Your task to perform on an android device: open app "LiveIn - Share Your Moment" Image 0: 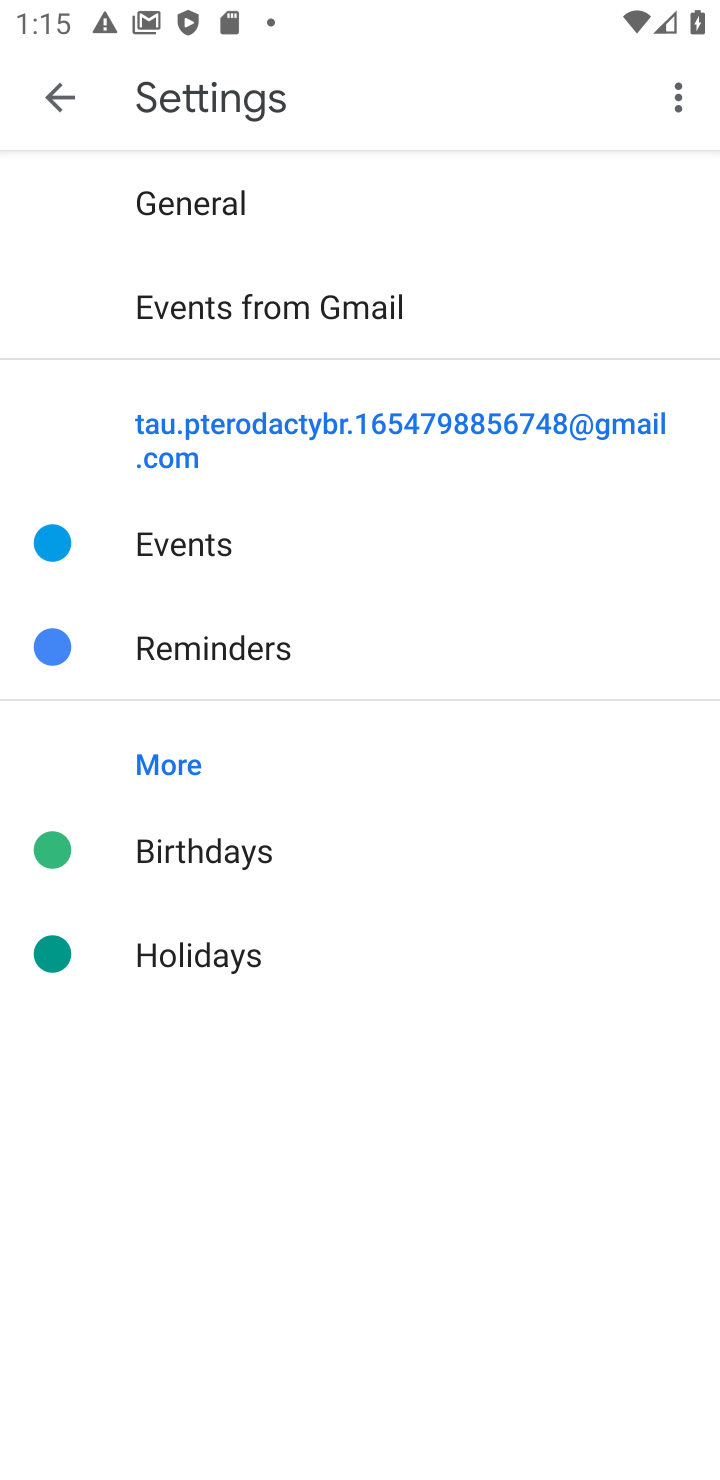
Step 0: press back button
Your task to perform on an android device: open app "LiveIn - Share Your Moment" Image 1: 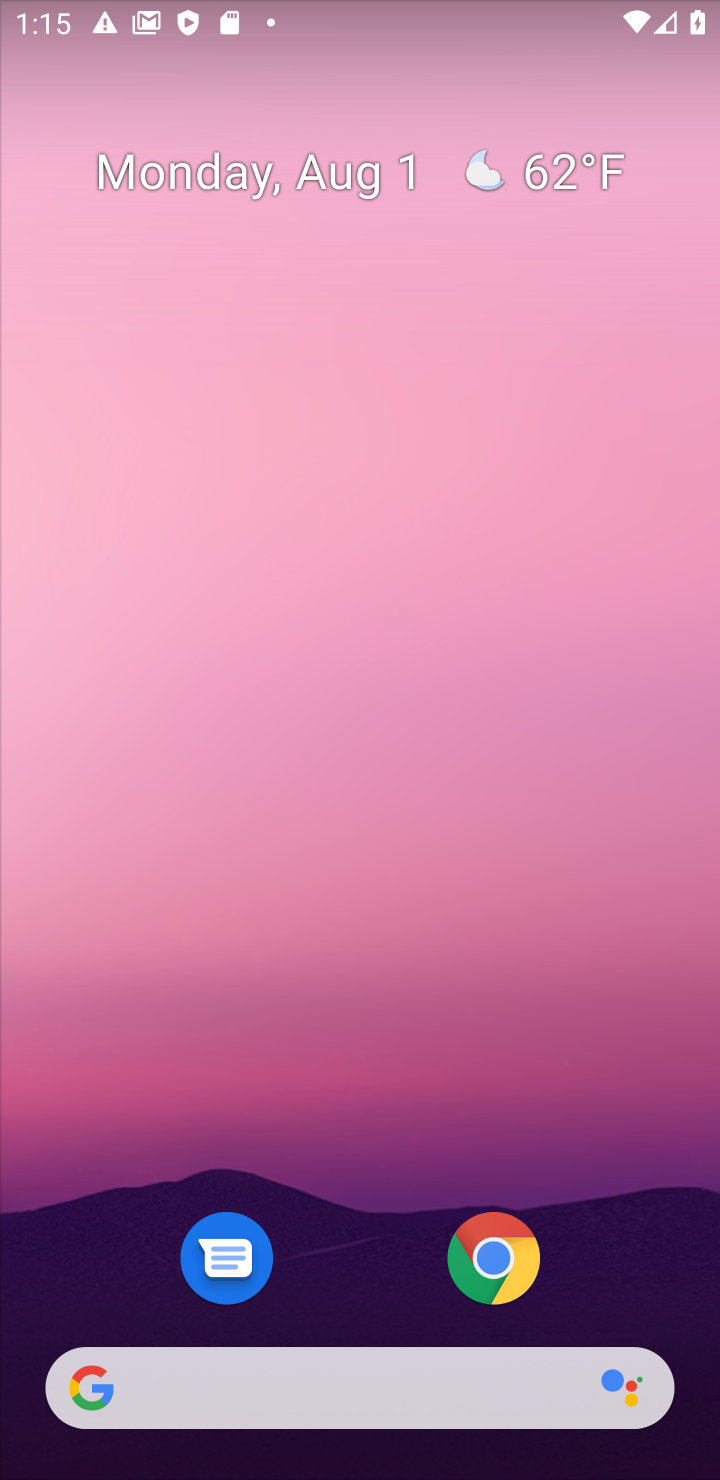
Step 1: drag from (248, 777) to (397, 31)
Your task to perform on an android device: open app "LiveIn - Share Your Moment" Image 2: 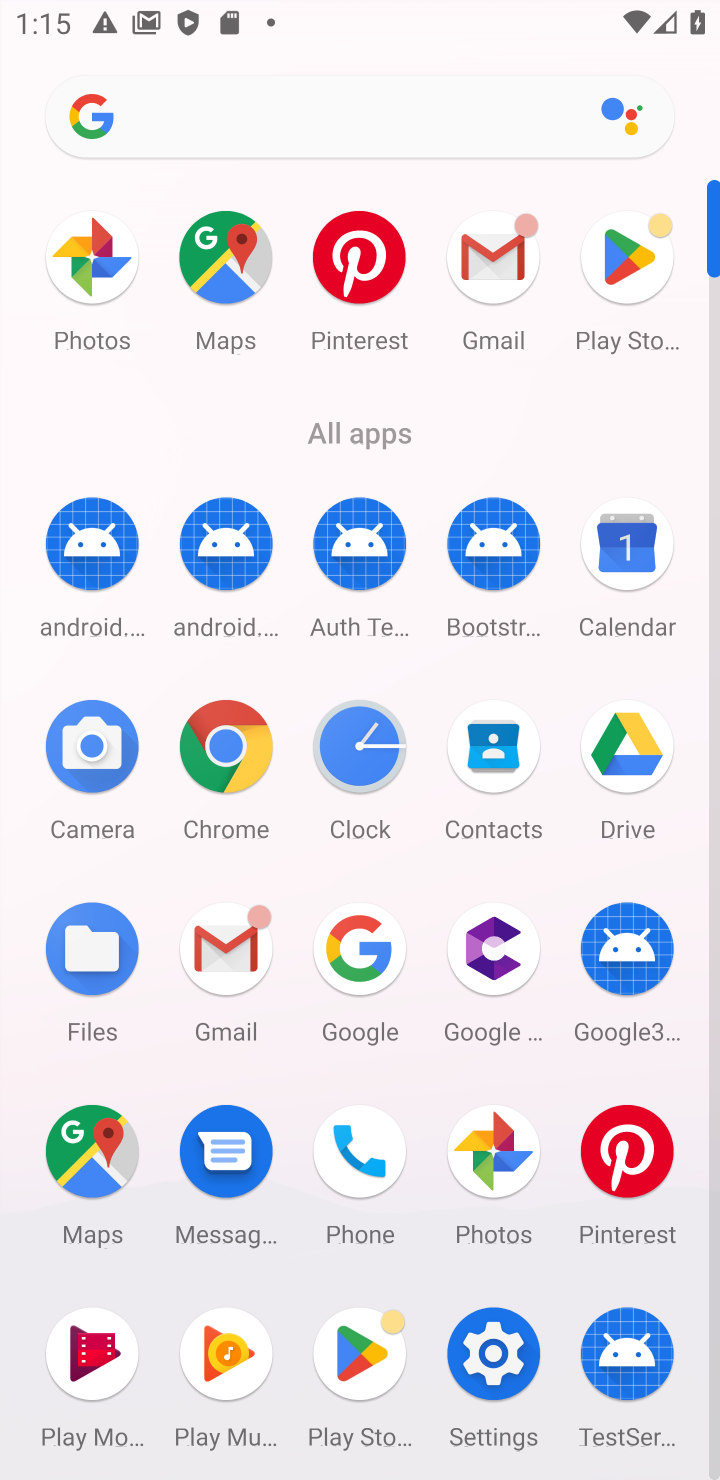
Step 2: click (627, 262)
Your task to perform on an android device: open app "LiveIn - Share Your Moment" Image 3: 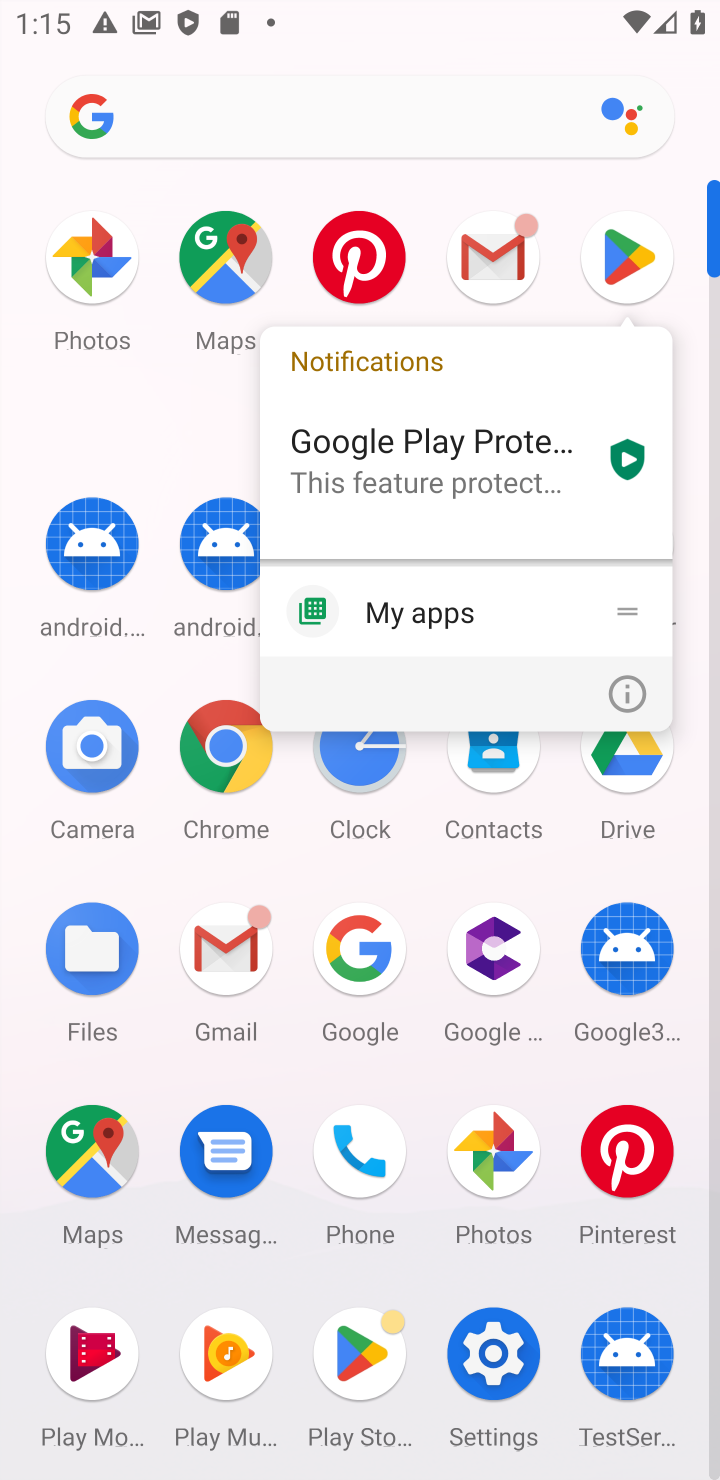
Step 3: click (638, 259)
Your task to perform on an android device: open app "LiveIn - Share Your Moment" Image 4: 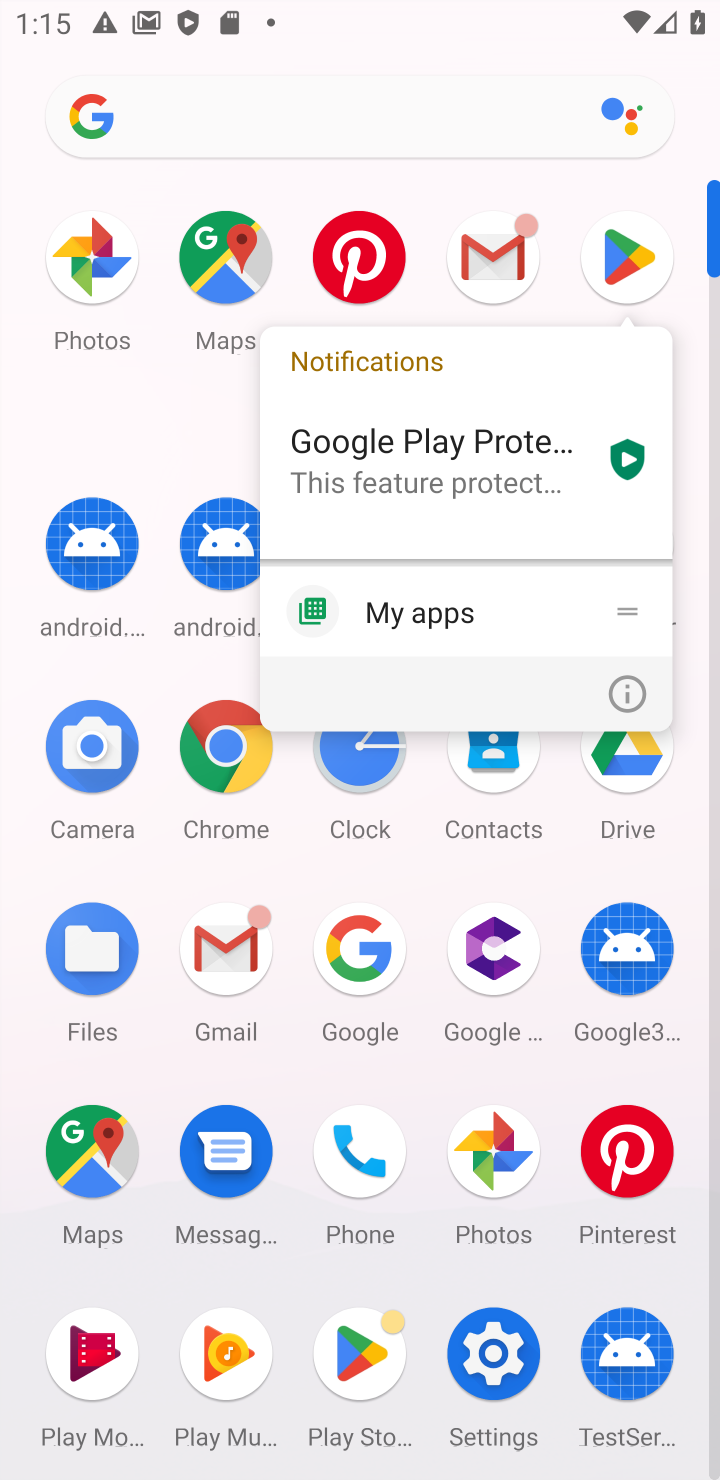
Step 4: click (633, 239)
Your task to perform on an android device: open app "LiveIn - Share Your Moment" Image 5: 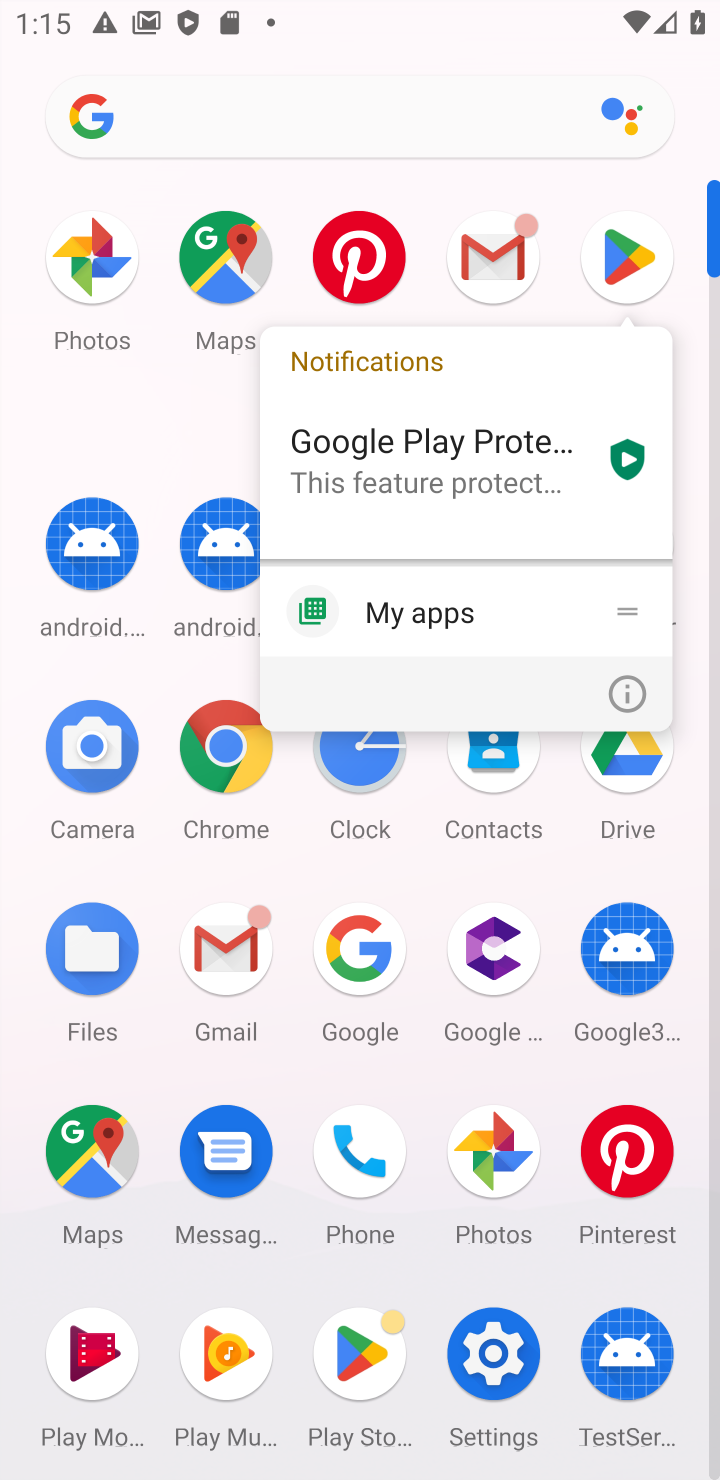
Step 5: click (626, 256)
Your task to perform on an android device: open app "LiveIn - Share Your Moment" Image 6: 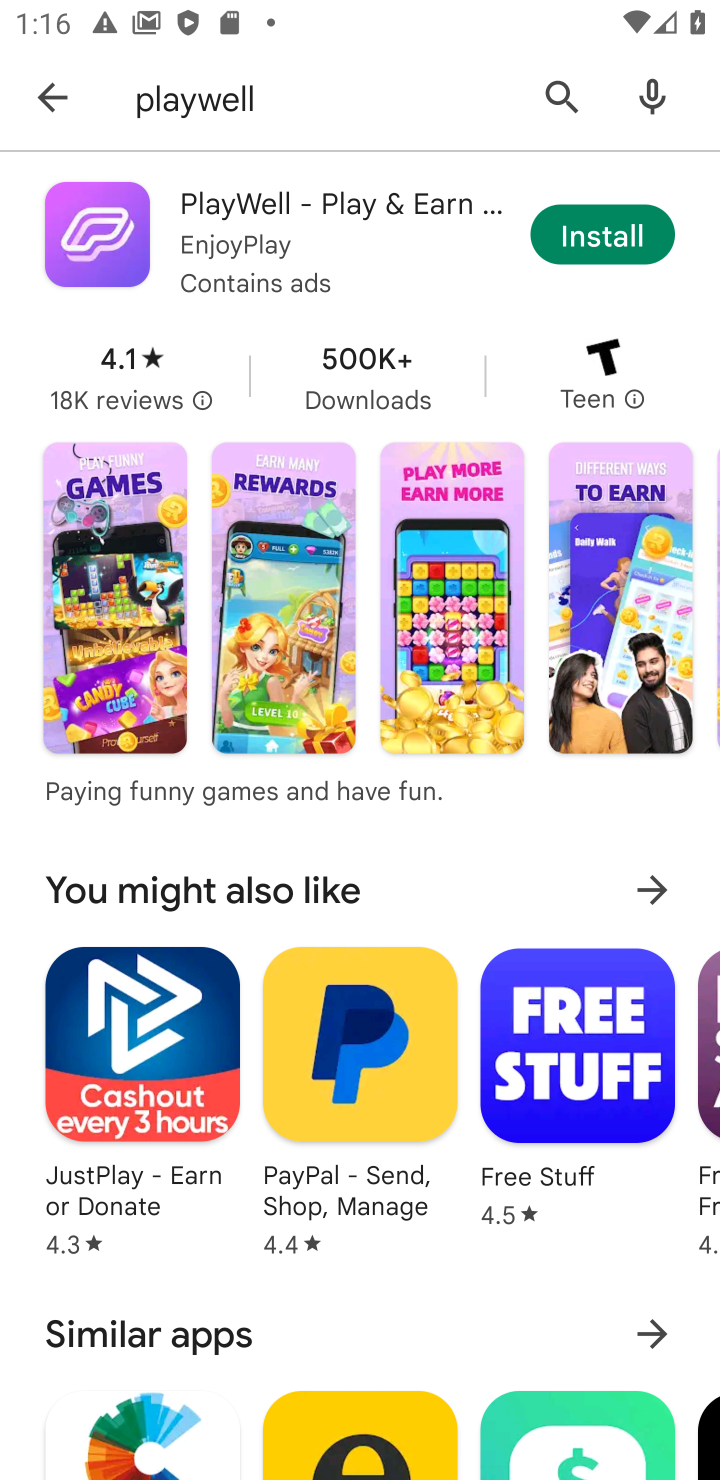
Step 6: click (572, 94)
Your task to perform on an android device: open app "LiveIn - Share Your Moment" Image 7: 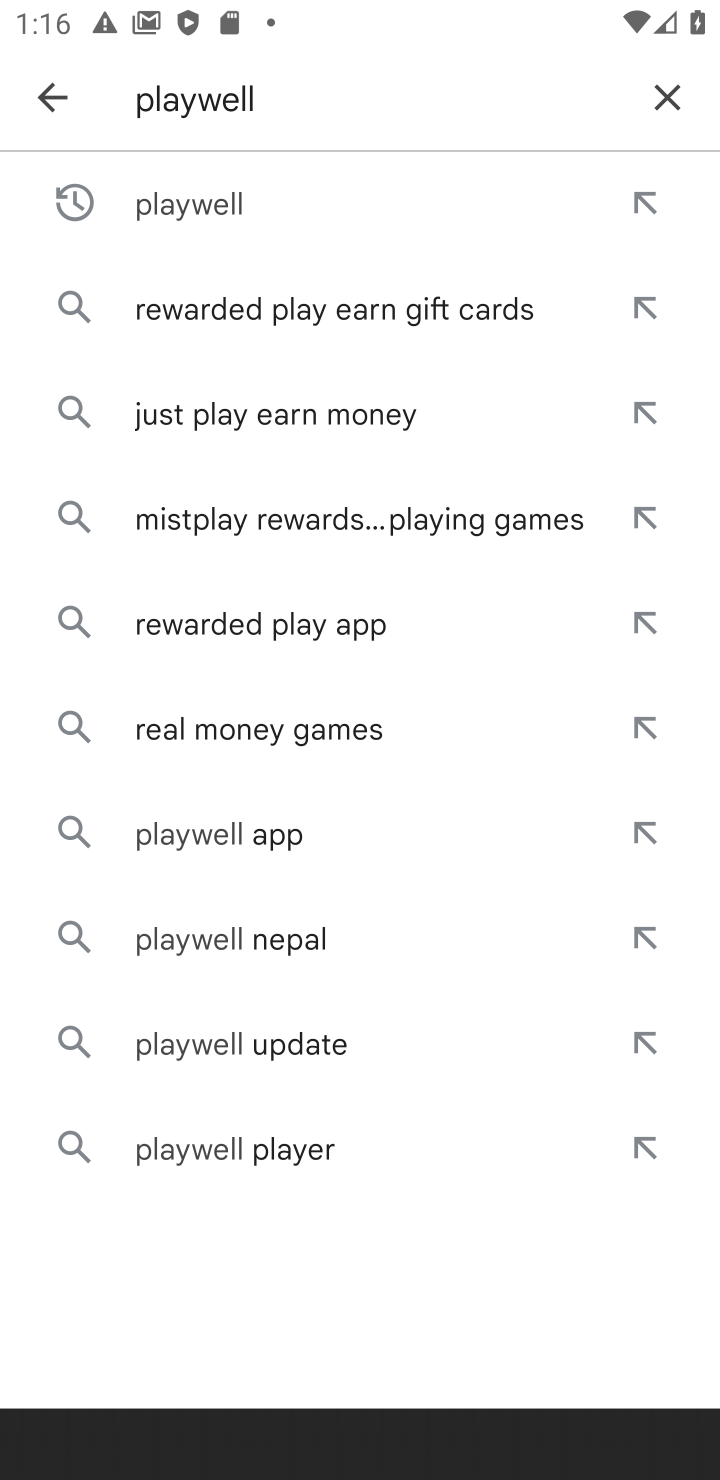
Step 7: click (670, 86)
Your task to perform on an android device: open app "LiveIn - Share Your Moment" Image 8: 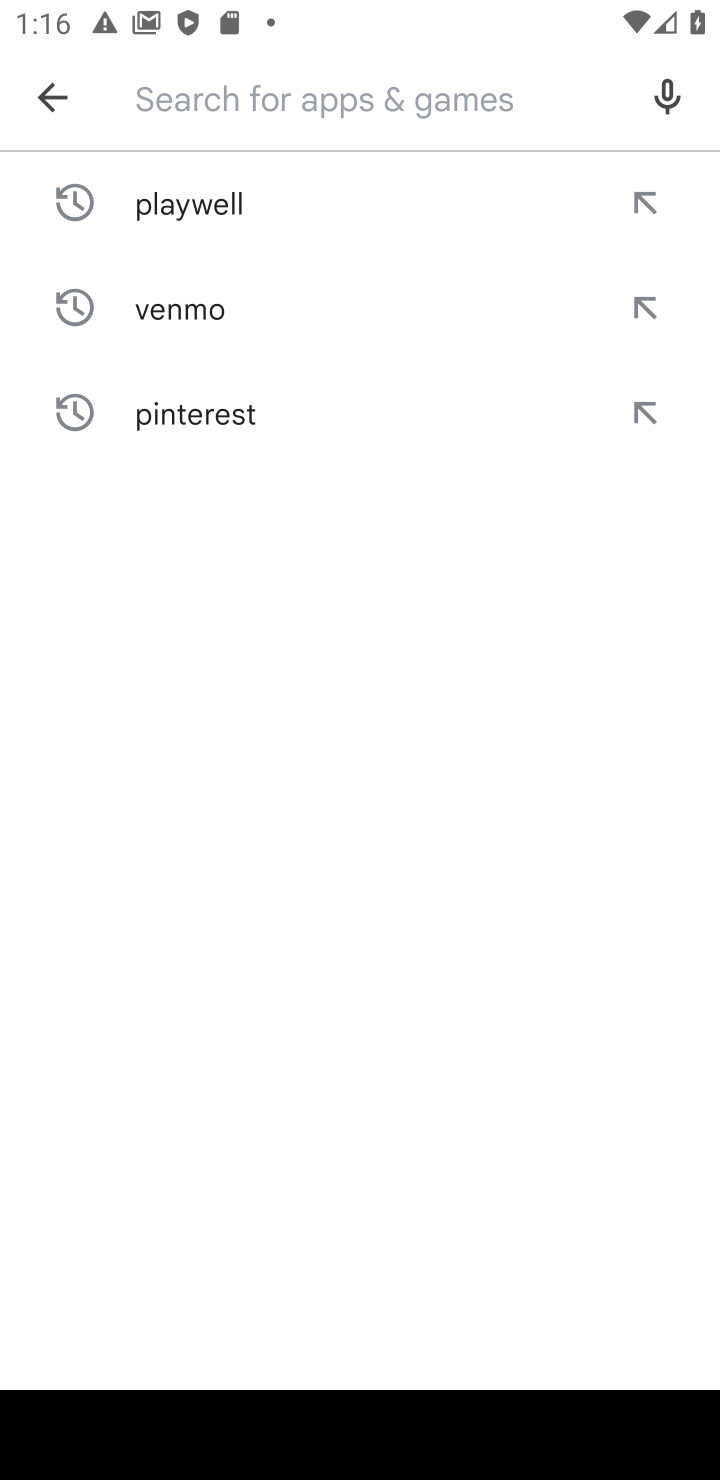
Step 8: click (308, 90)
Your task to perform on an android device: open app "LiveIn - Share Your Moment" Image 9: 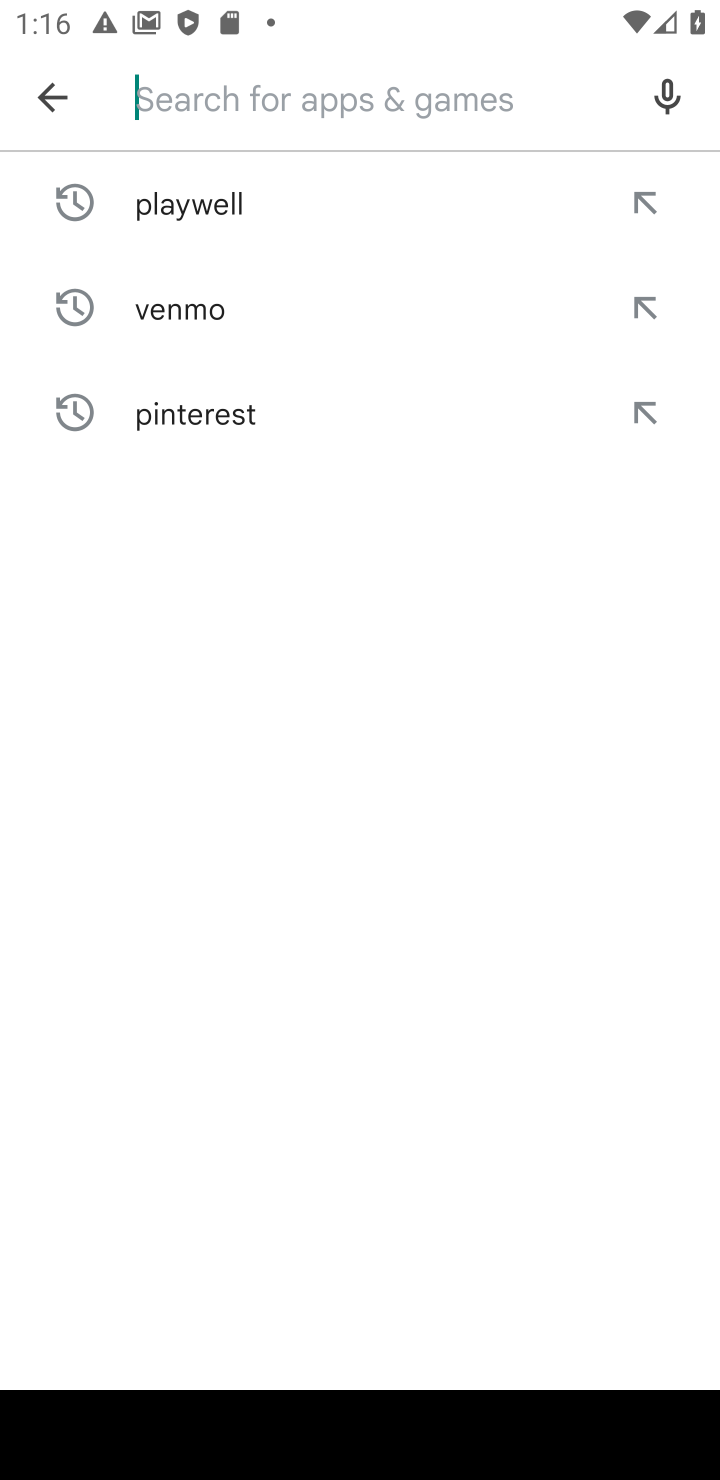
Step 9: type "liveln"
Your task to perform on an android device: open app "LiveIn - Share Your Moment" Image 10: 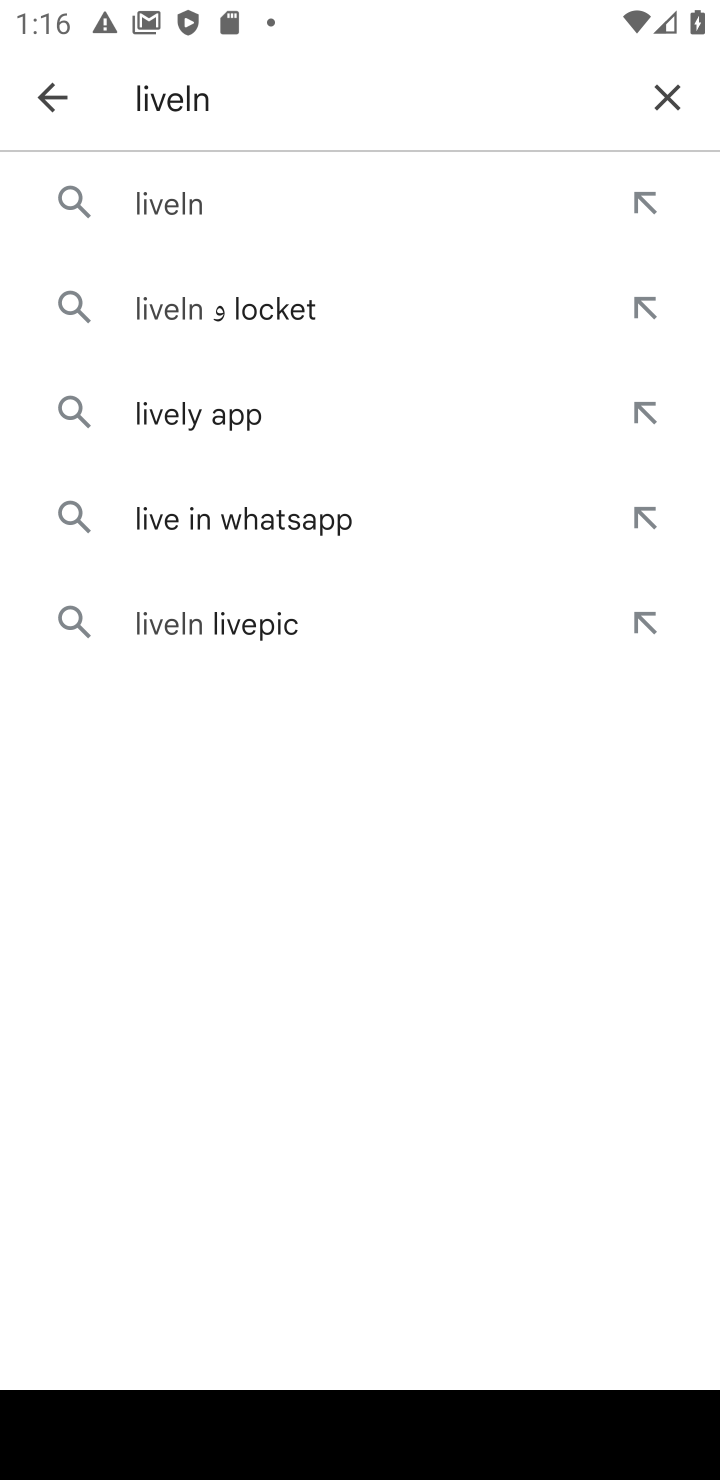
Step 10: click (192, 172)
Your task to perform on an android device: open app "LiveIn - Share Your Moment" Image 11: 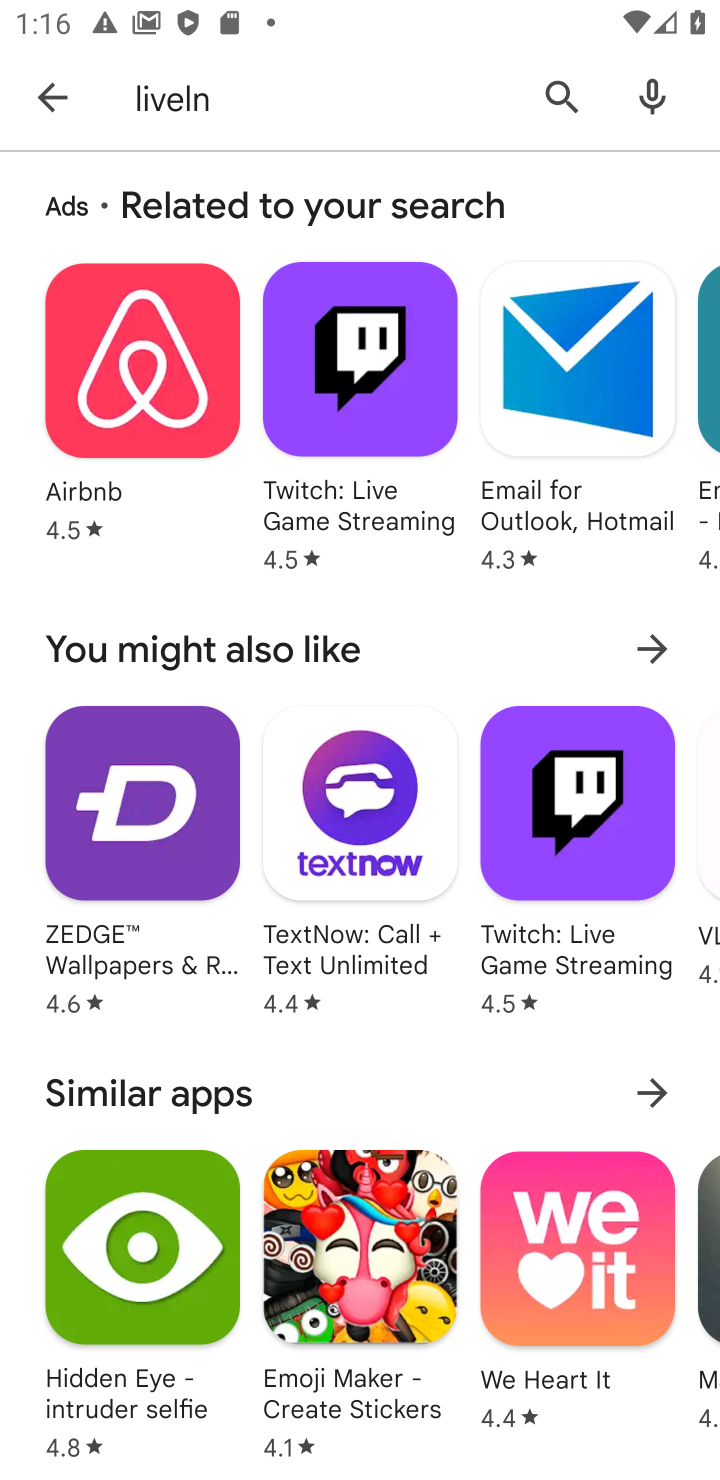
Step 11: task complete